Your task to perform on an android device: Is it going to rain today? Image 0: 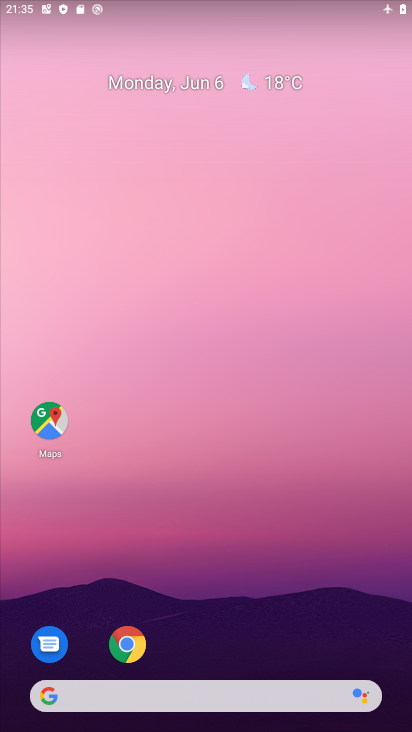
Step 0: drag from (313, 614) to (317, 242)
Your task to perform on an android device: Is it going to rain today? Image 1: 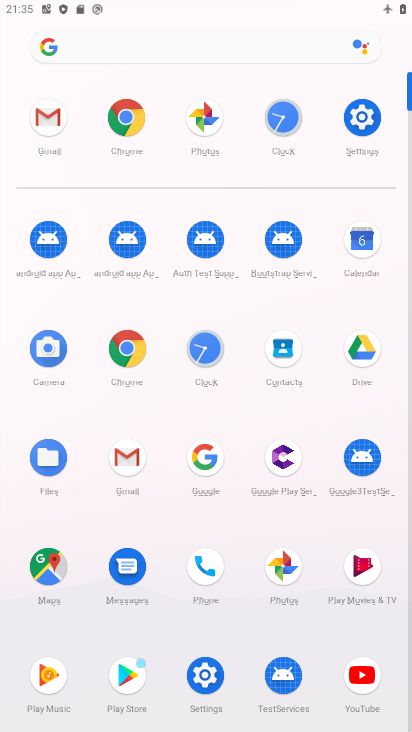
Step 1: click (117, 360)
Your task to perform on an android device: Is it going to rain today? Image 2: 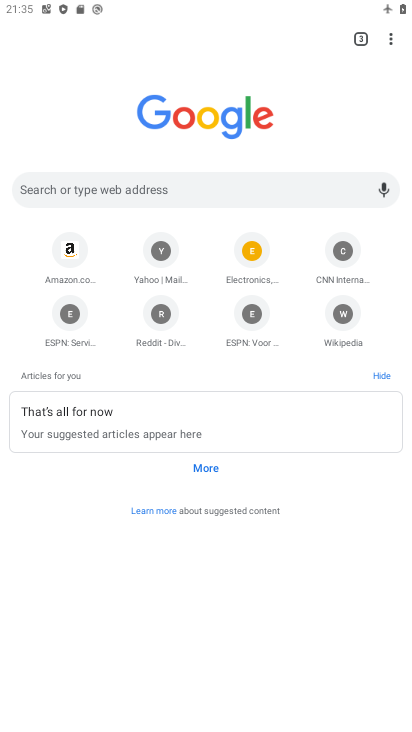
Step 2: click (107, 195)
Your task to perform on an android device: Is it going to rain today? Image 3: 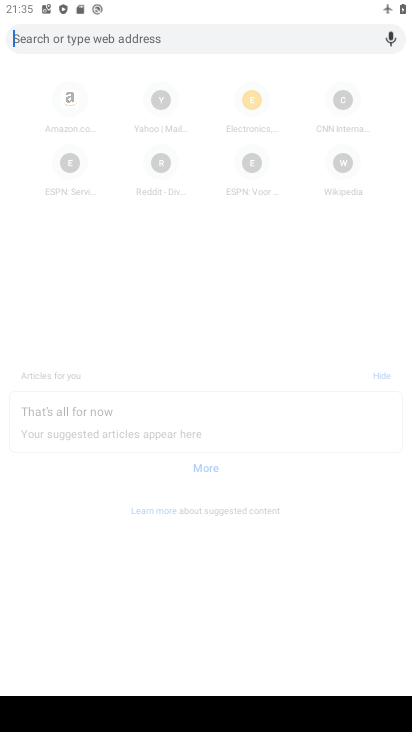
Step 3: type "is it going to rain today"
Your task to perform on an android device: Is it going to rain today? Image 4: 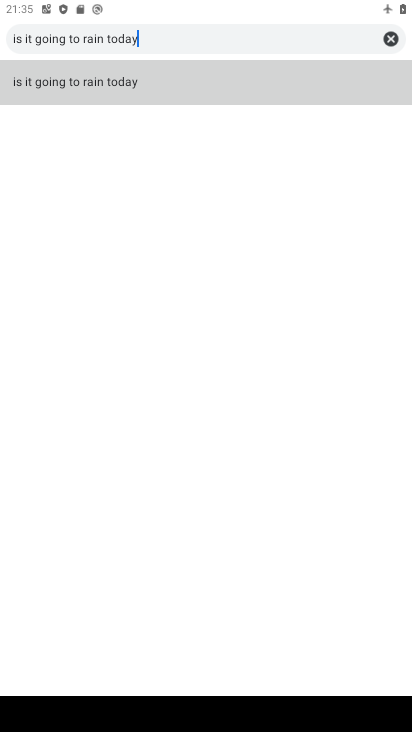
Step 4: click (113, 78)
Your task to perform on an android device: Is it going to rain today? Image 5: 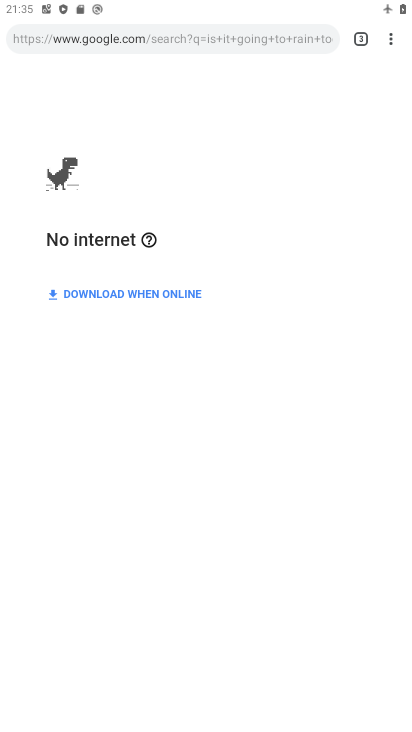
Step 5: task complete